Your task to perform on an android device: toggle data saver in the chrome app Image 0: 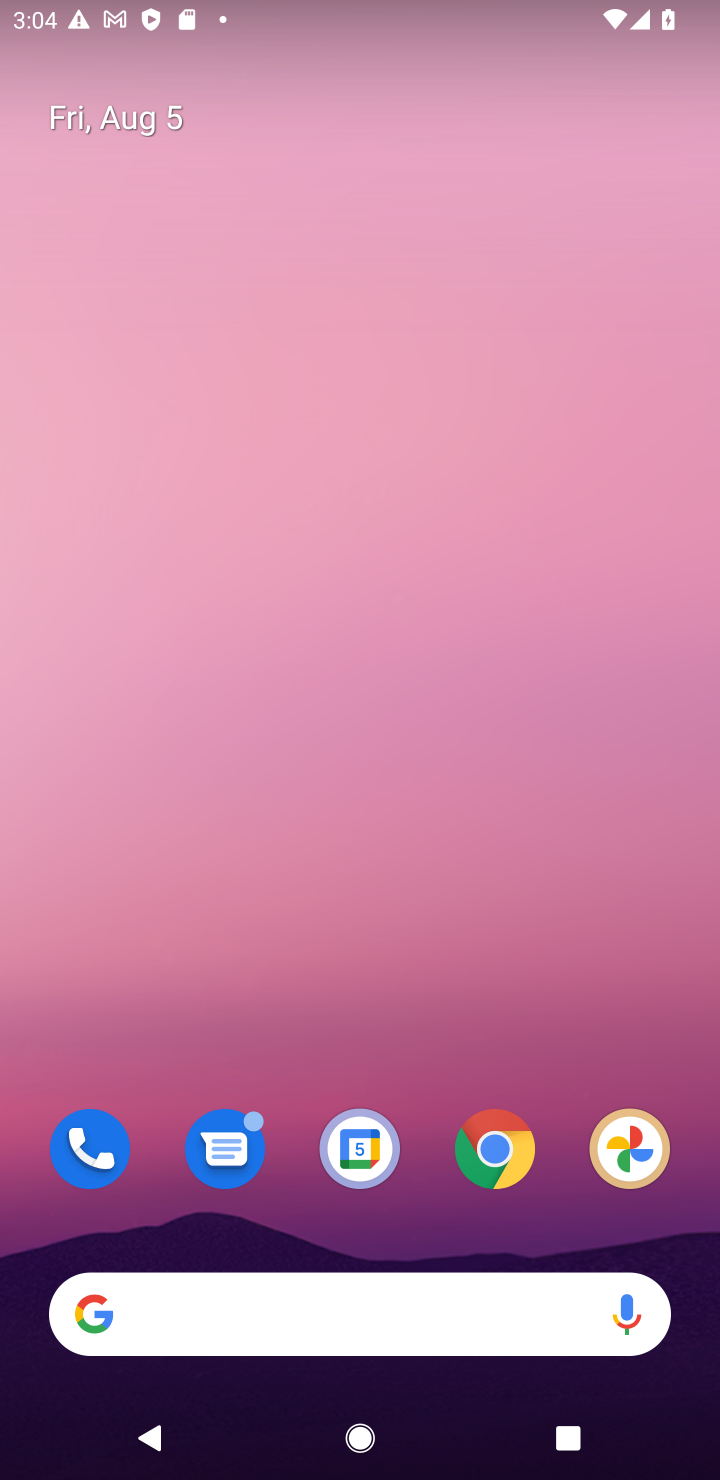
Step 0: click (503, 1118)
Your task to perform on an android device: toggle data saver in the chrome app Image 1: 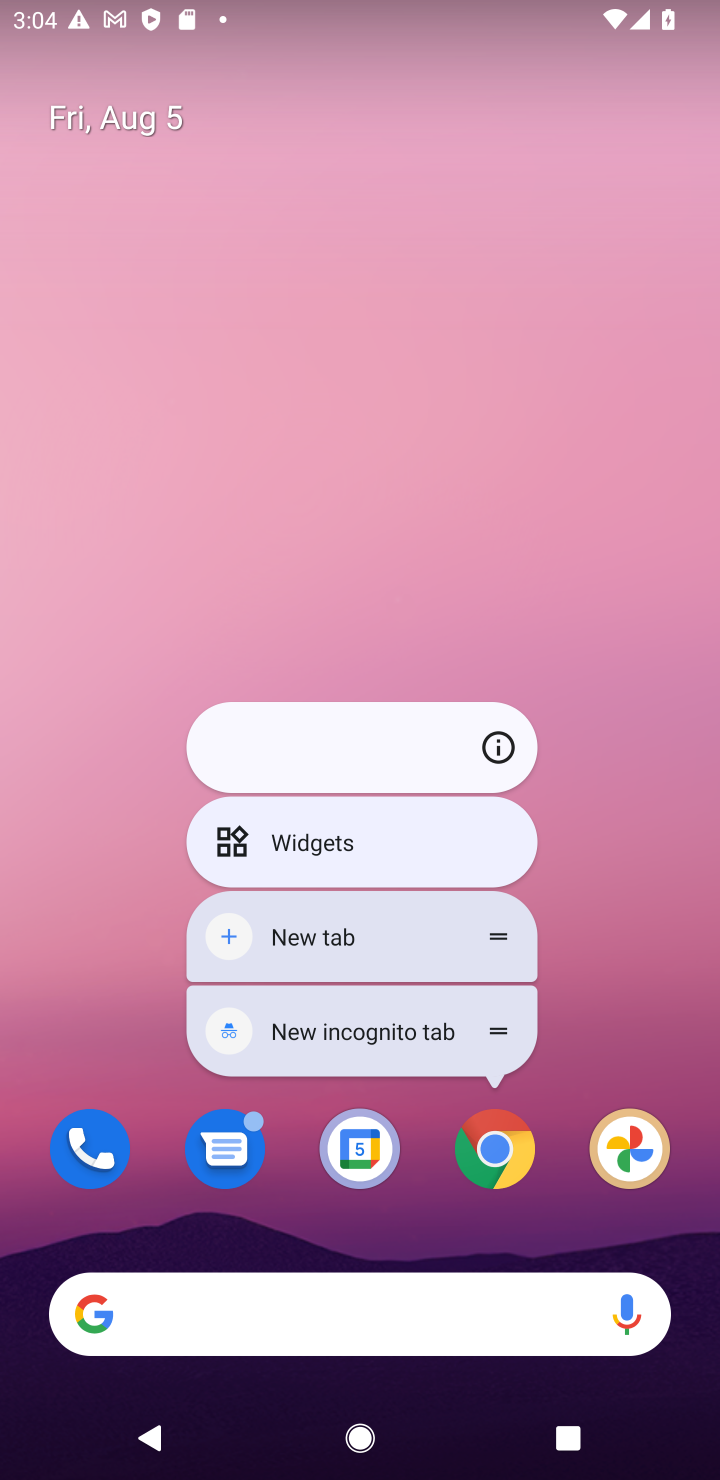
Step 1: click (509, 1138)
Your task to perform on an android device: toggle data saver in the chrome app Image 2: 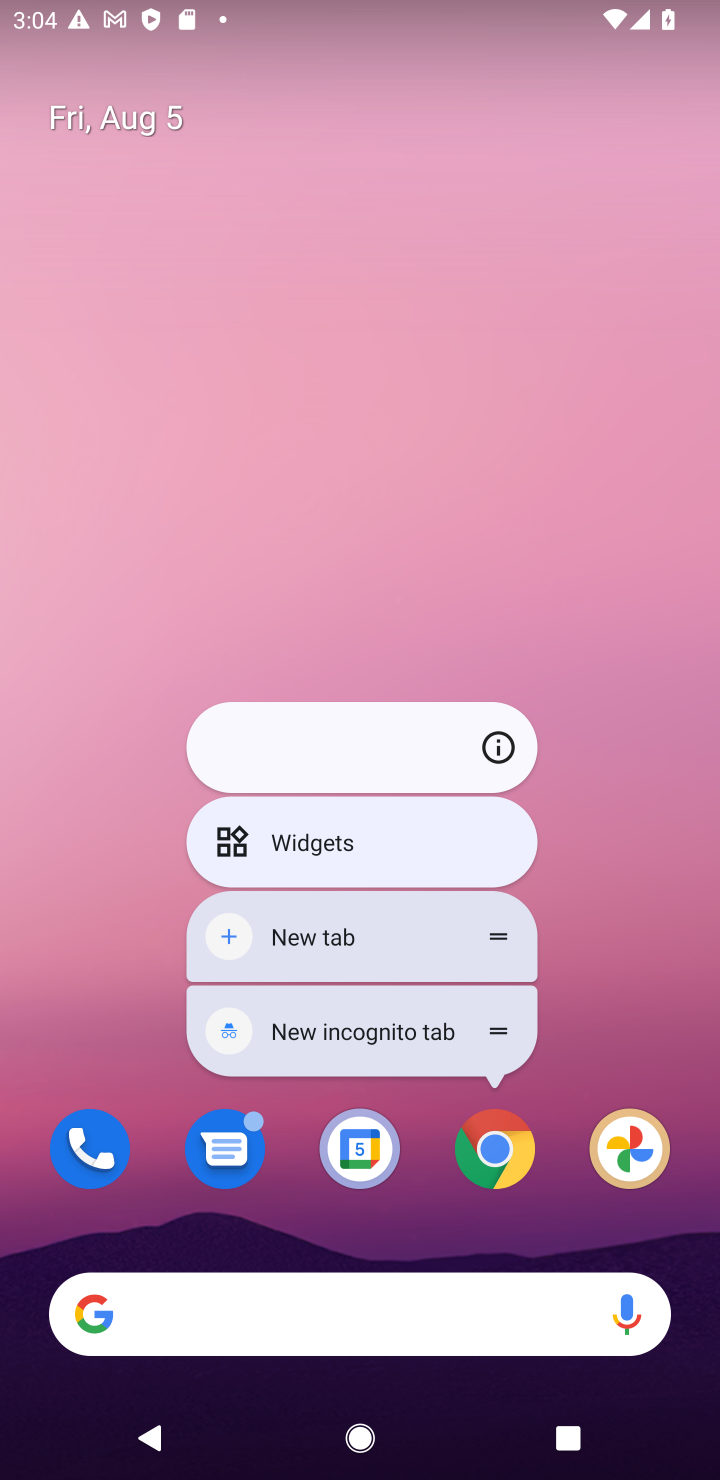
Step 2: click (511, 1149)
Your task to perform on an android device: toggle data saver in the chrome app Image 3: 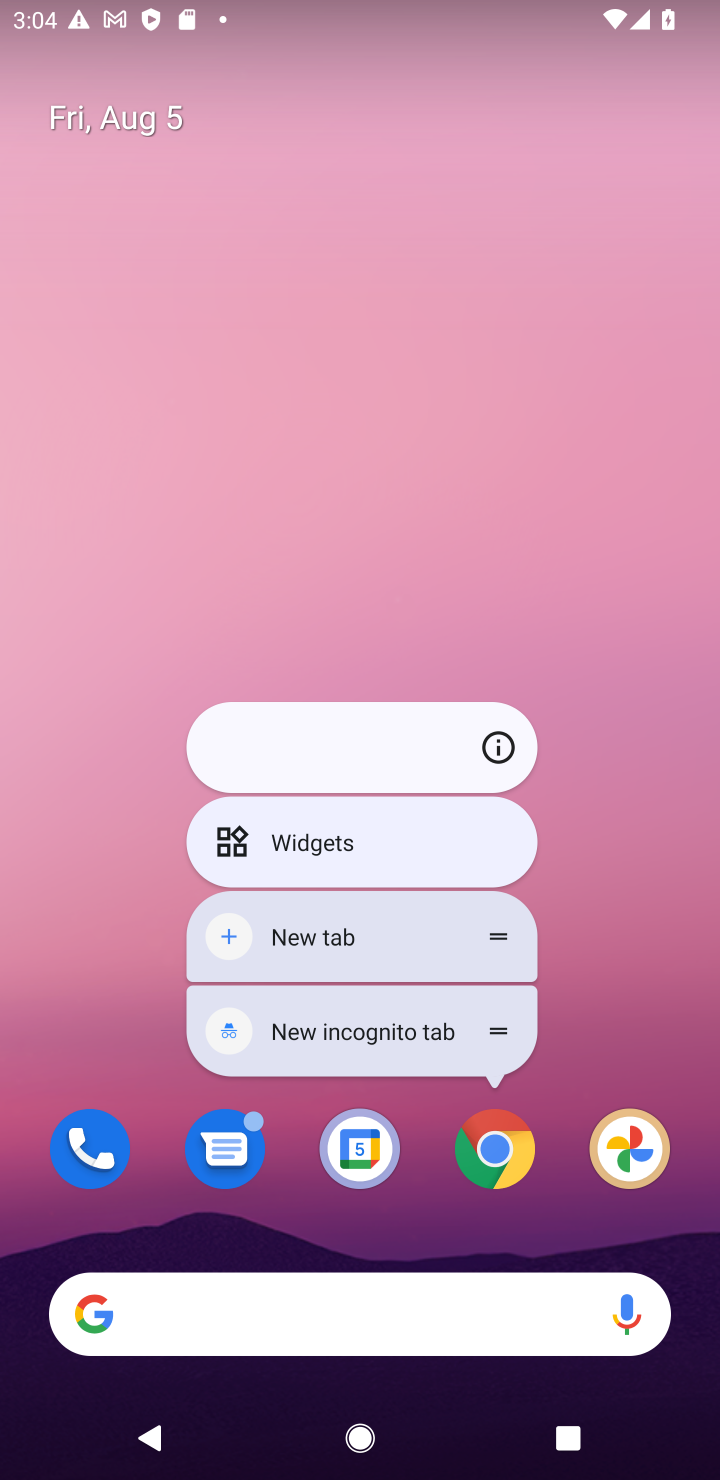
Step 3: click (506, 1176)
Your task to perform on an android device: toggle data saver in the chrome app Image 4: 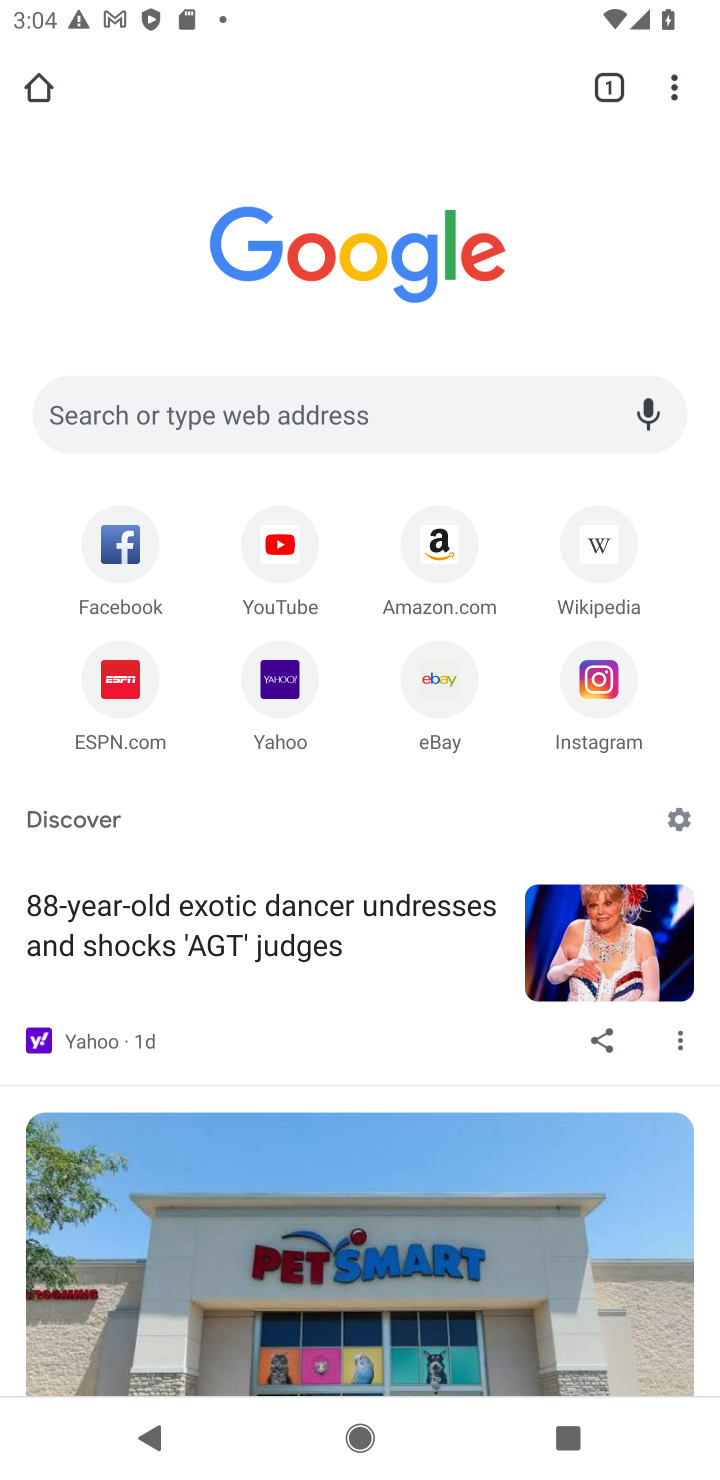
Step 4: drag from (684, 81) to (431, 766)
Your task to perform on an android device: toggle data saver in the chrome app Image 5: 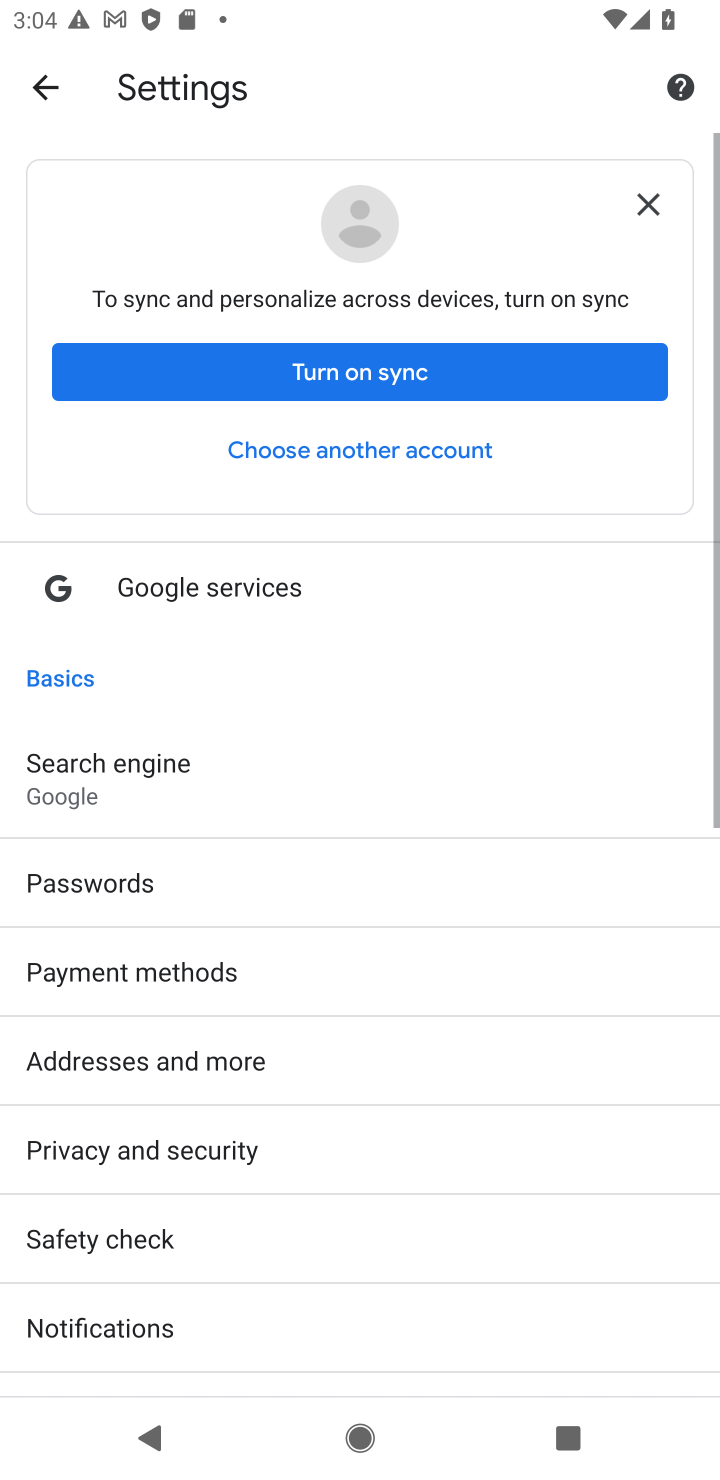
Step 5: drag from (264, 1325) to (494, 217)
Your task to perform on an android device: toggle data saver in the chrome app Image 6: 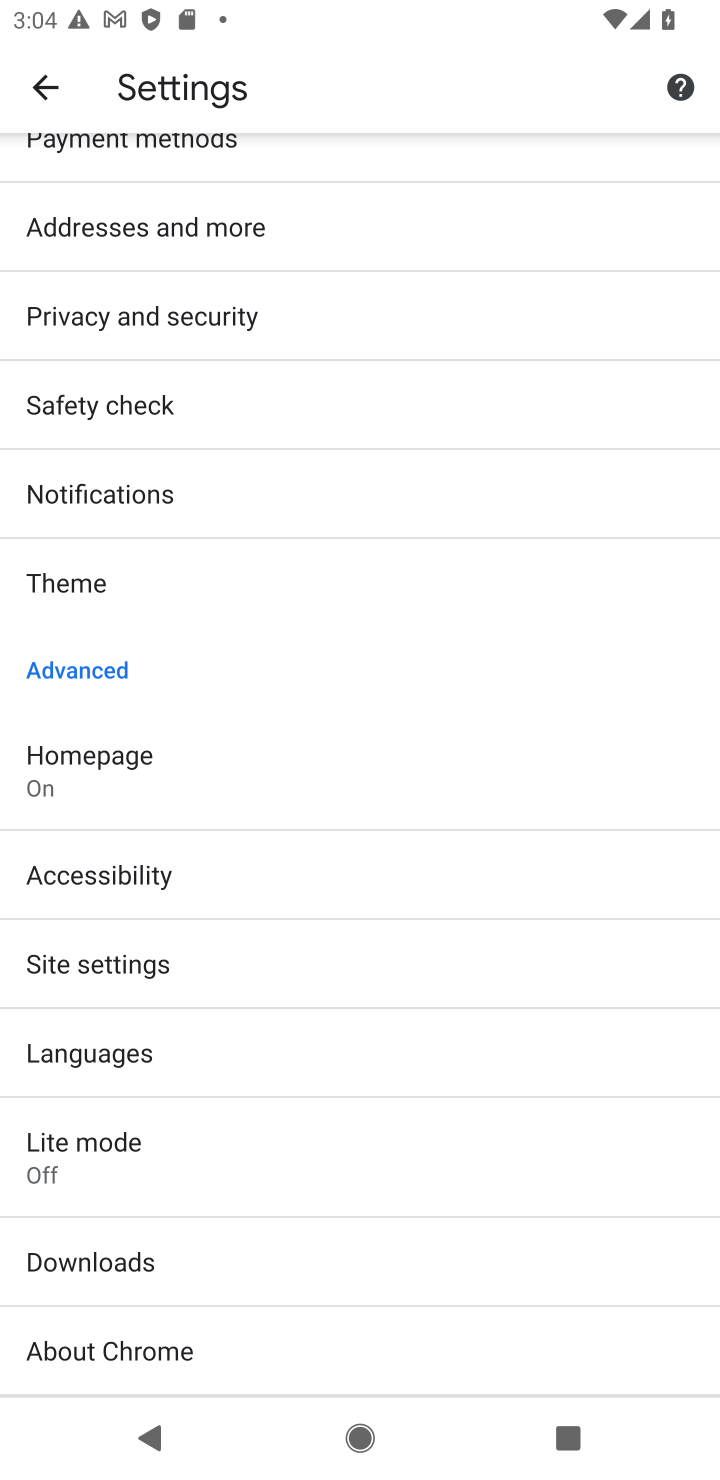
Step 6: click (130, 1144)
Your task to perform on an android device: toggle data saver in the chrome app Image 7: 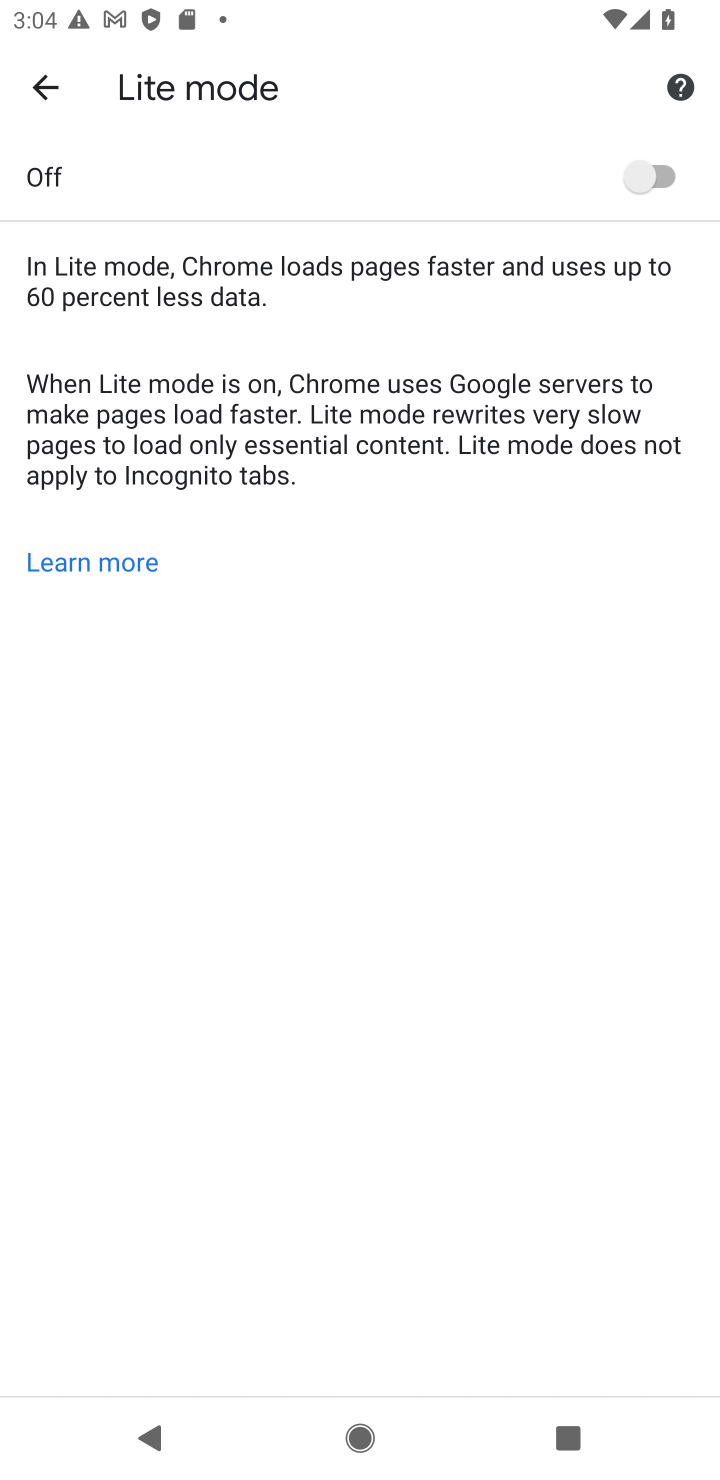
Step 7: click (674, 166)
Your task to perform on an android device: toggle data saver in the chrome app Image 8: 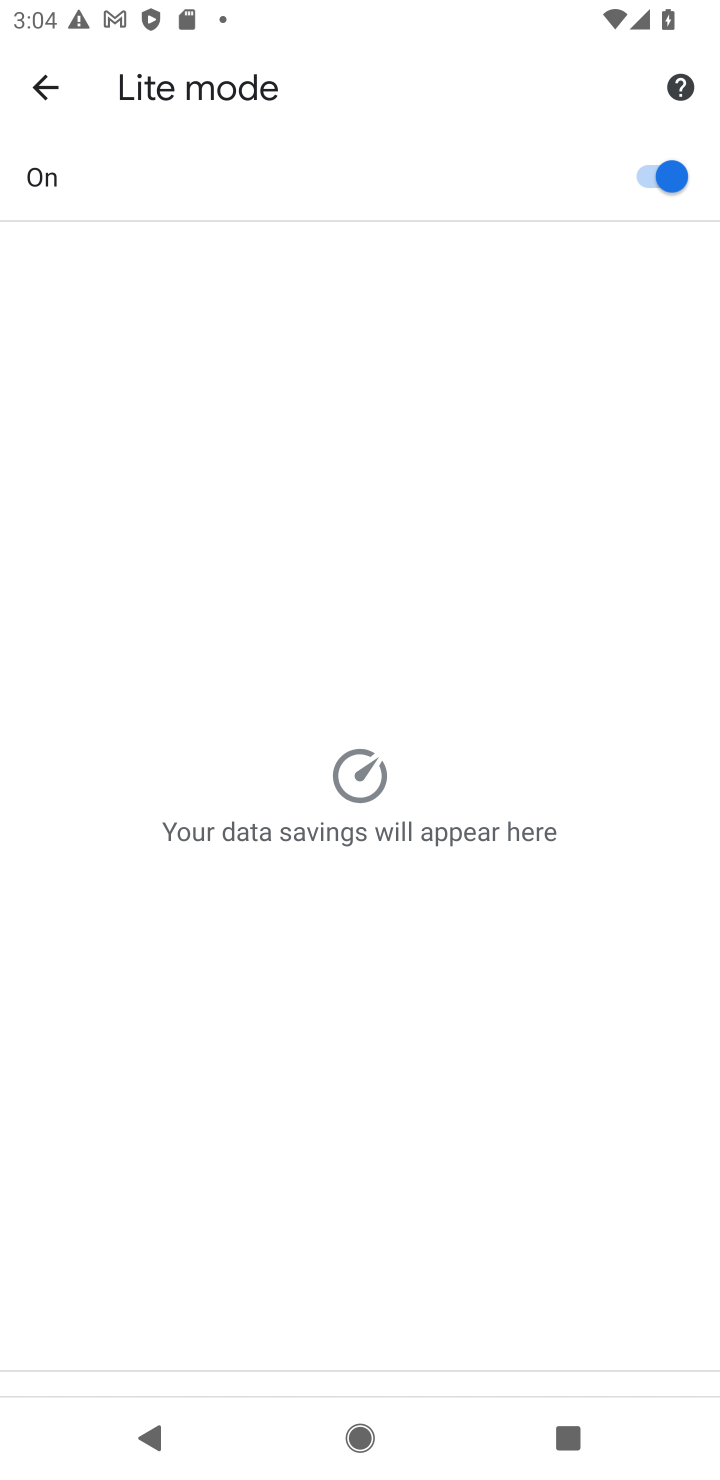
Step 8: task complete